Your task to perform on an android device: What is the news today? Image 0: 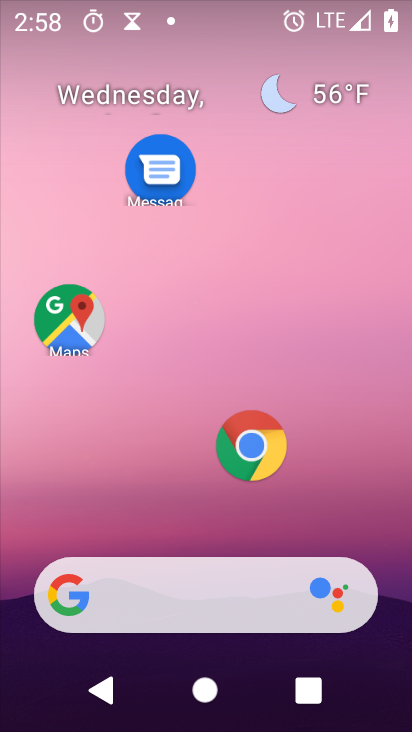
Step 0: drag from (191, 506) to (232, 185)
Your task to perform on an android device: What is the news today? Image 1: 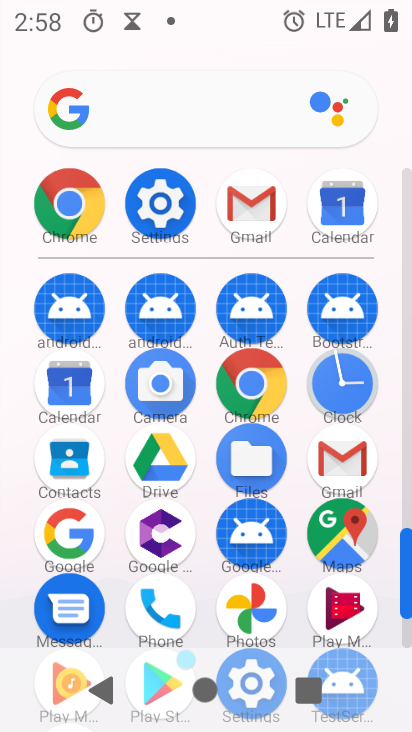
Step 1: click (63, 551)
Your task to perform on an android device: What is the news today? Image 2: 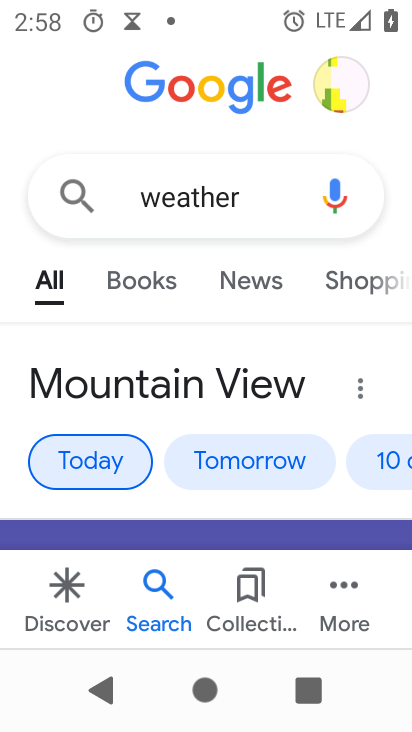
Step 2: click (79, 613)
Your task to perform on an android device: What is the news today? Image 3: 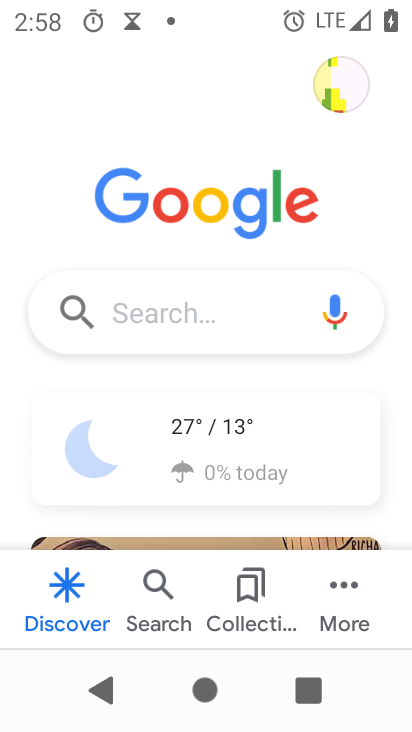
Step 3: task complete